Your task to perform on an android device: Go to internet settings Image 0: 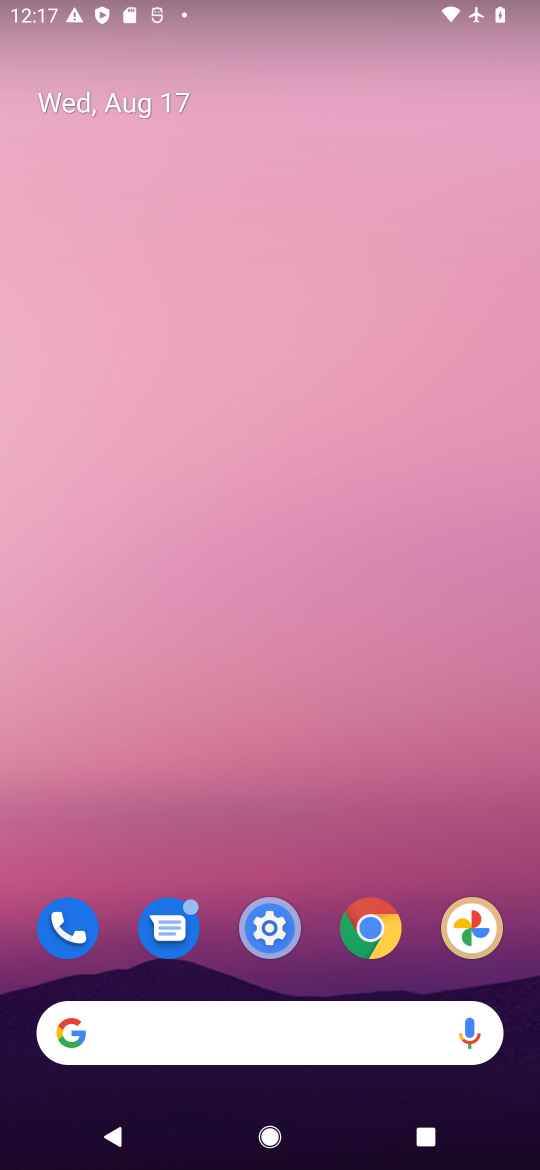
Step 0: click (293, 924)
Your task to perform on an android device: Go to internet settings Image 1: 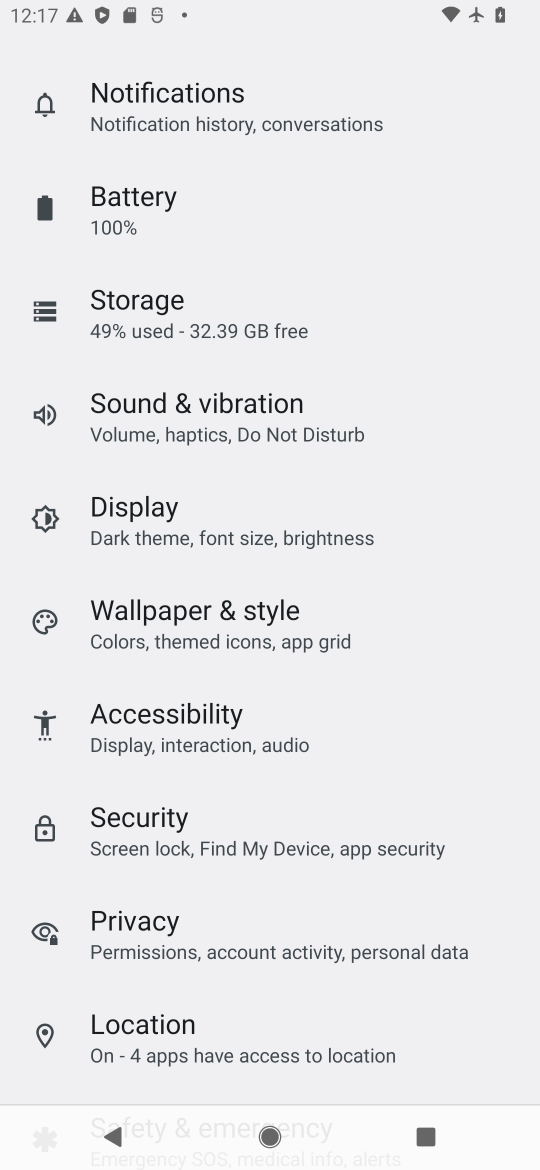
Step 1: drag from (234, 224) to (303, 691)
Your task to perform on an android device: Go to internet settings Image 2: 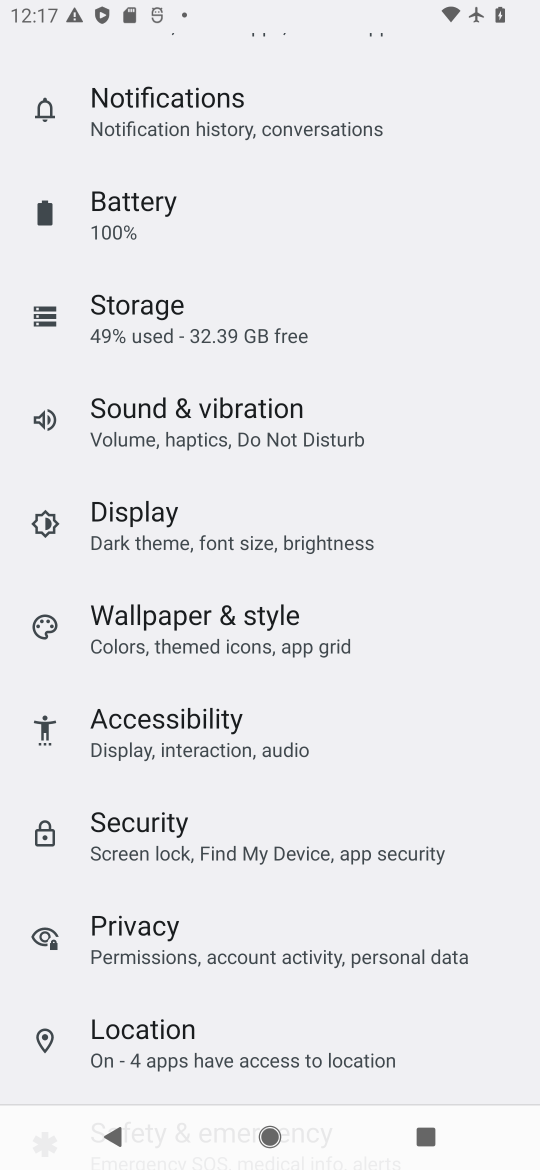
Step 2: drag from (247, 248) to (273, 828)
Your task to perform on an android device: Go to internet settings Image 3: 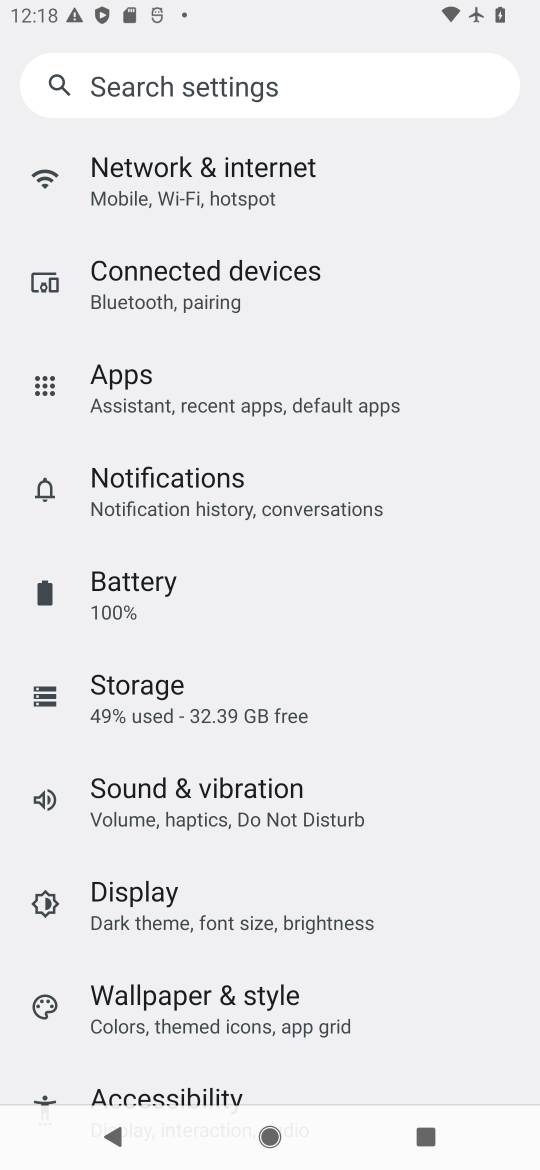
Step 3: click (238, 192)
Your task to perform on an android device: Go to internet settings Image 4: 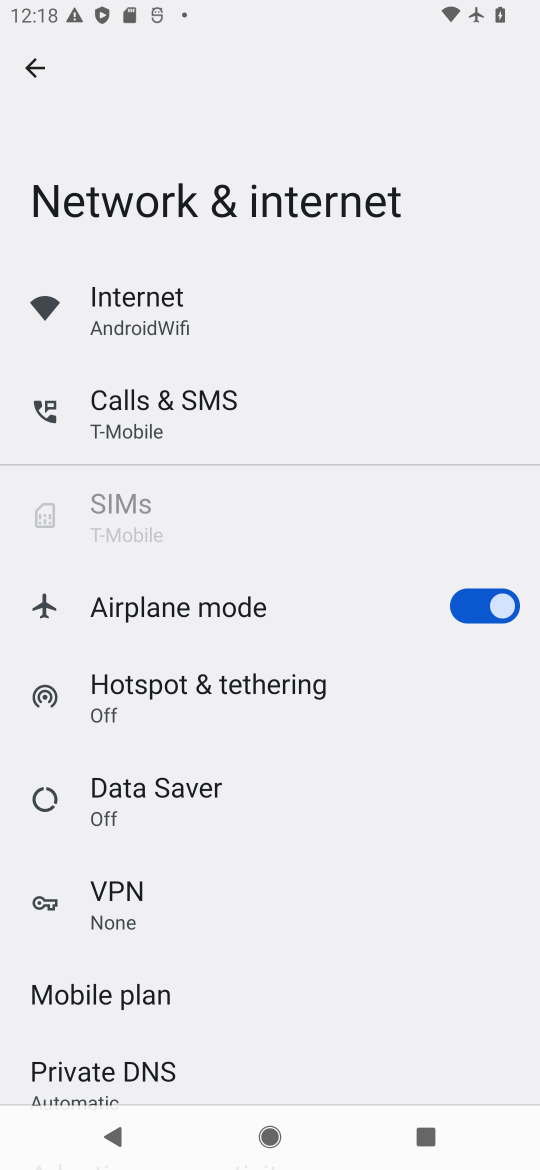
Step 4: click (209, 286)
Your task to perform on an android device: Go to internet settings Image 5: 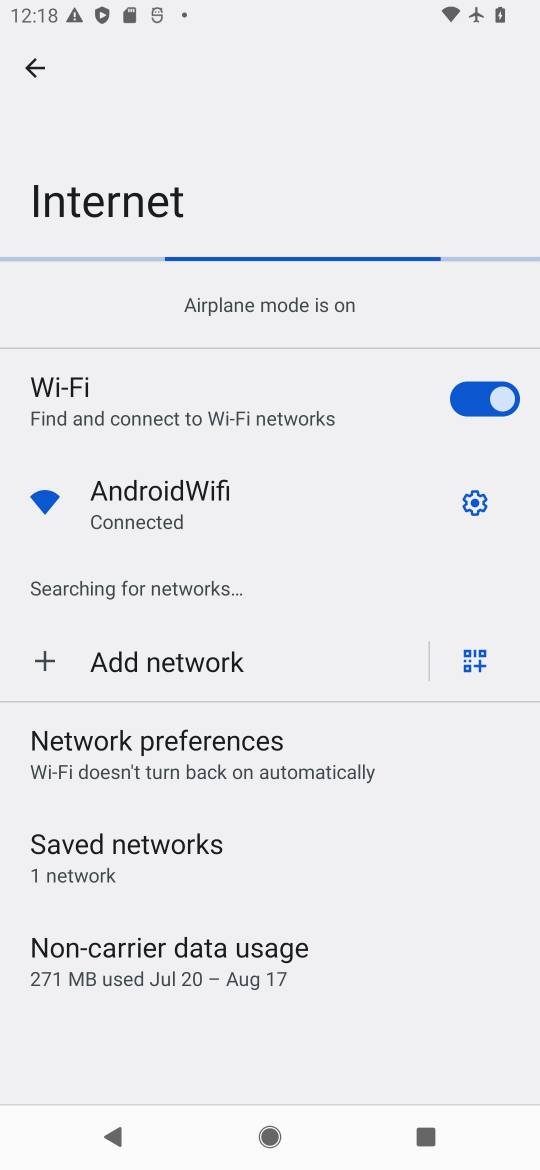
Step 5: task complete